Your task to perform on an android device: move an email to a new category in the gmail app Image 0: 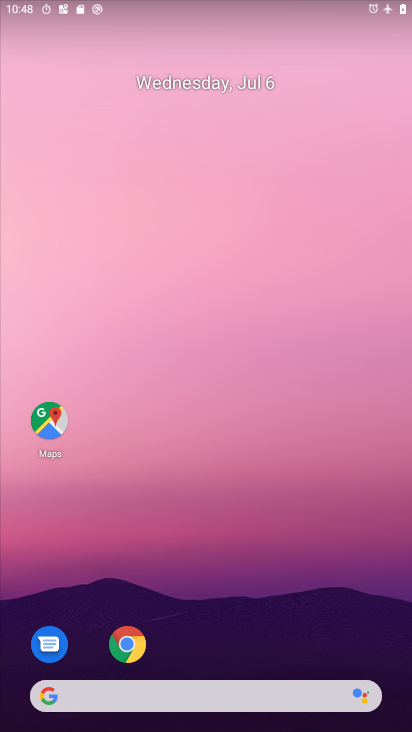
Step 0: drag from (192, 623) to (207, 327)
Your task to perform on an android device: move an email to a new category in the gmail app Image 1: 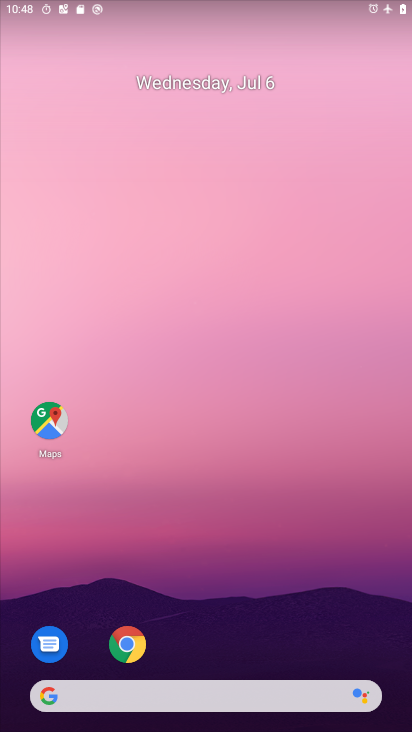
Step 1: drag from (214, 635) to (258, 134)
Your task to perform on an android device: move an email to a new category in the gmail app Image 2: 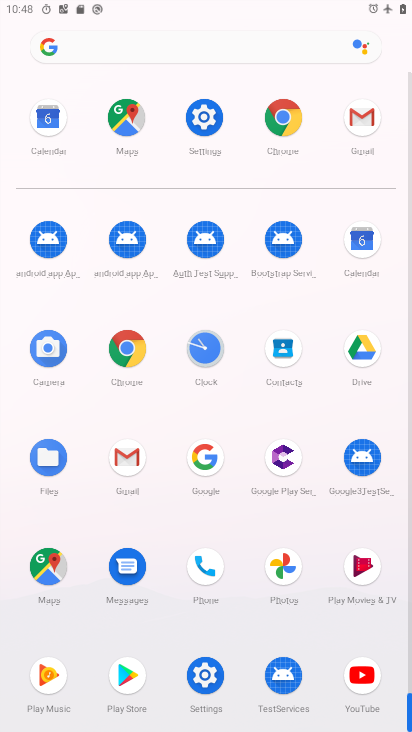
Step 2: click (127, 461)
Your task to perform on an android device: move an email to a new category in the gmail app Image 3: 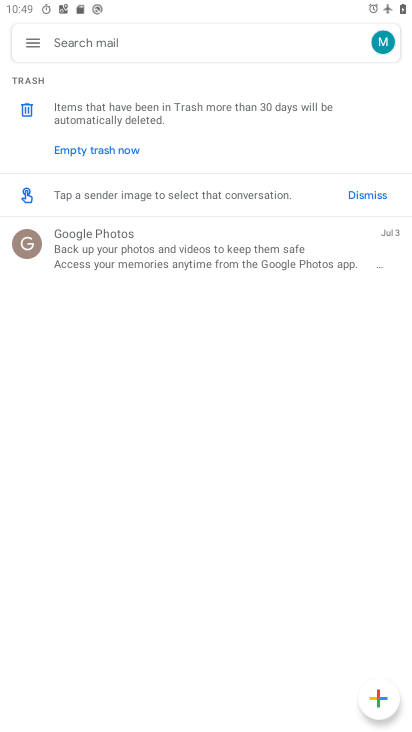
Step 3: click (185, 266)
Your task to perform on an android device: move an email to a new category in the gmail app Image 4: 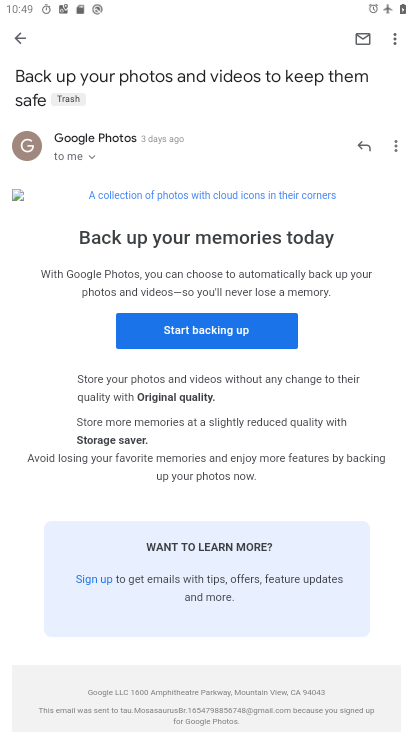
Step 4: click (392, 44)
Your task to perform on an android device: move an email to a new category in the gmail app Image 5: 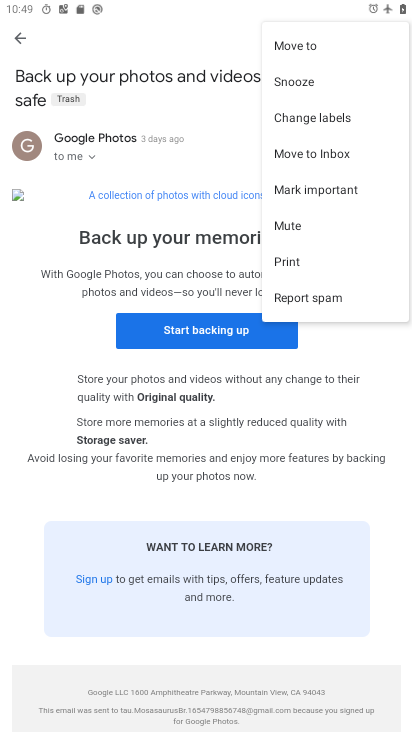
Step 5: click (330, 121)
Your task to perform on an android device: move an email to a new category in the gmail app Image 6: 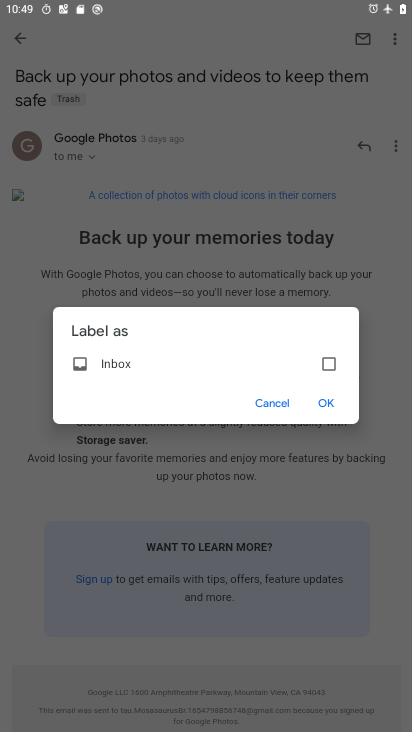
Step 6: click (328, 367)
Your task to perform on an android device: move an email to a new category in the gmail app Image 7: 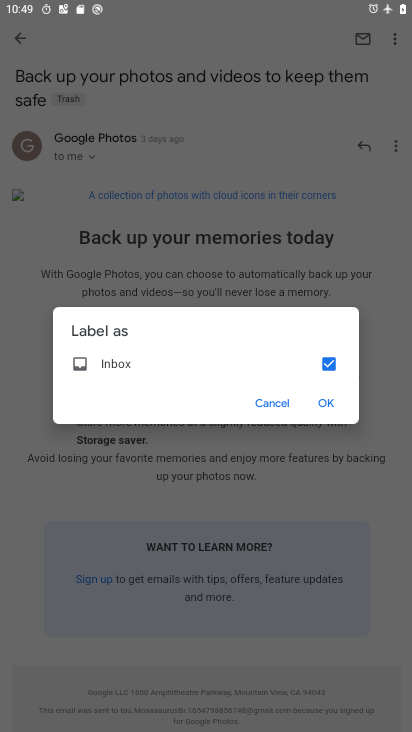
Step 7: click (336, 410)
Your task to perform on an android device: move an email to a new category in the gmail app Image 8: 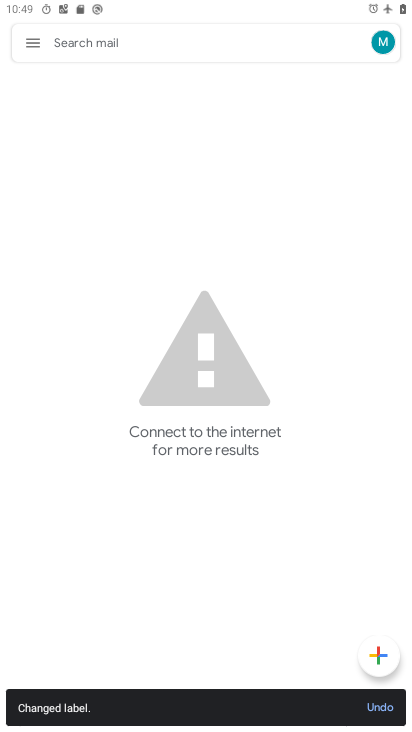
Step 8: task complete